Your task to perform on an android device: check android version Image 0: 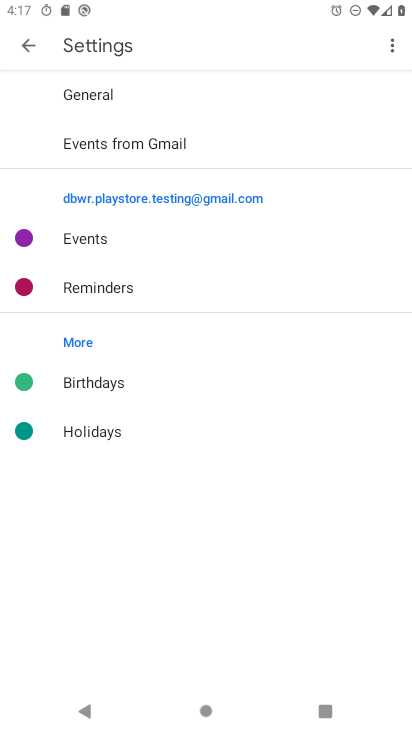
Step 0: press home button
Your task to perform on an android device: check android version Image 1: 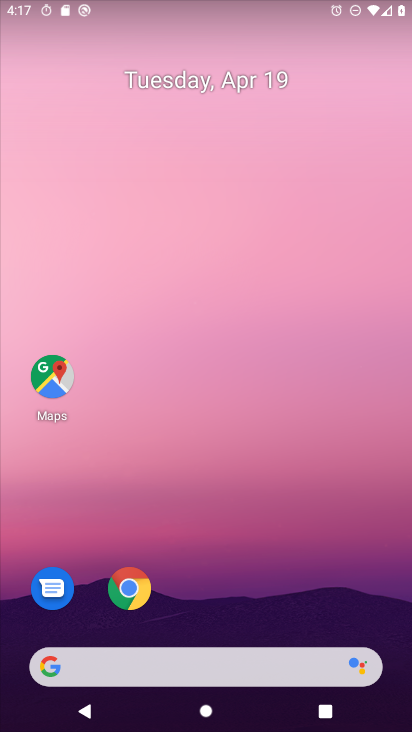
Step 1: drag from (213, 603) to (184, 111)
Your task to perform on an android device: check android version Image 2: 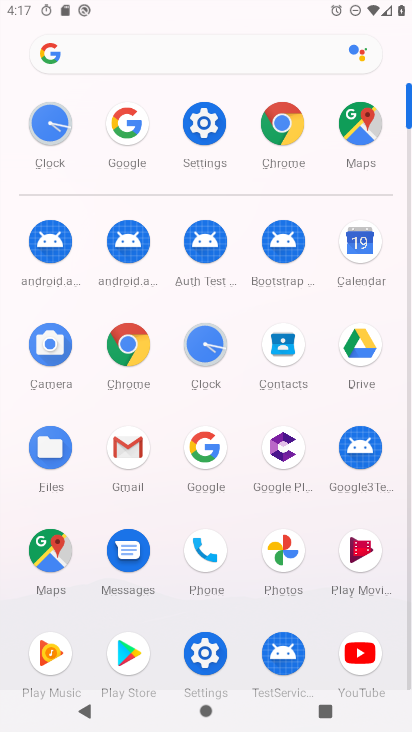
Step 2: click (204, 133)
Your task to perform on an android device: check android version Image 3: 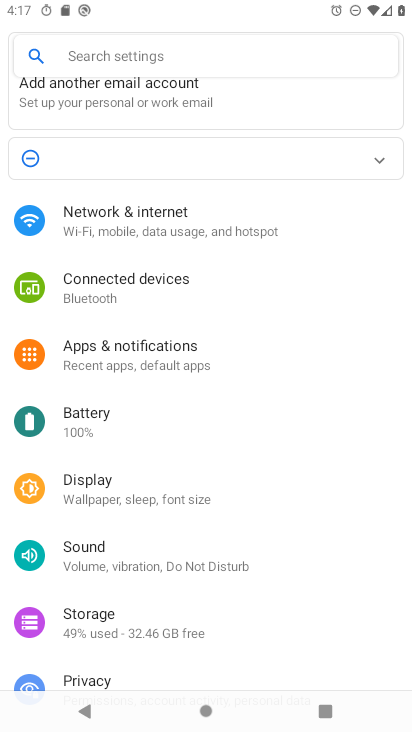
Step 3: drag from (209, 584) to (233, 176)
Your task to perform on an android device: check android version Image 4: 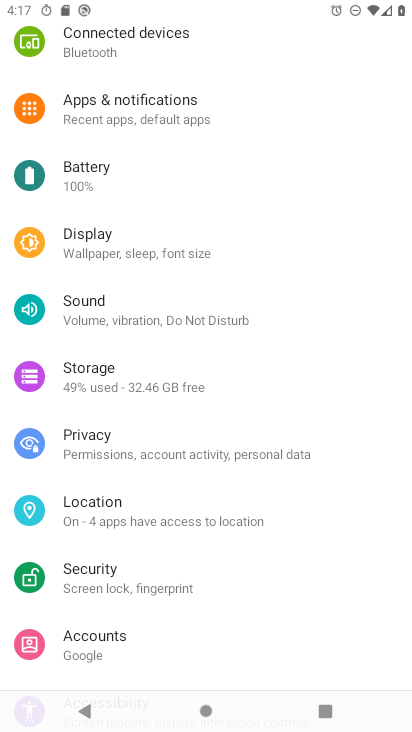
Step 4: drag from (187, 636) to (189, 259)
Your task to perform on an android device: check android version Image 5: 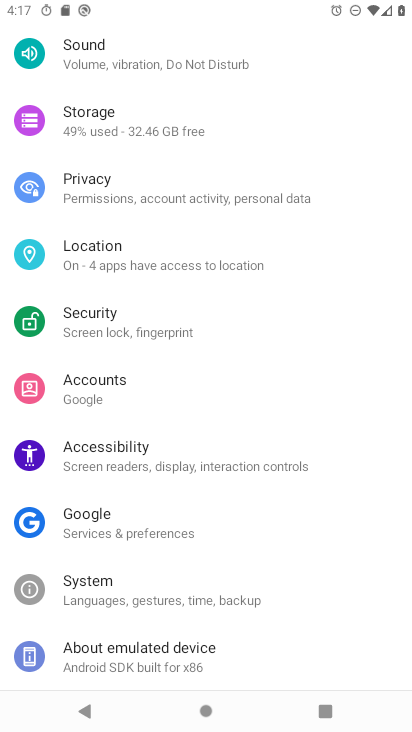
Step 5: click (168, 643)
Your task to perform on an android device: check android version Image 6: 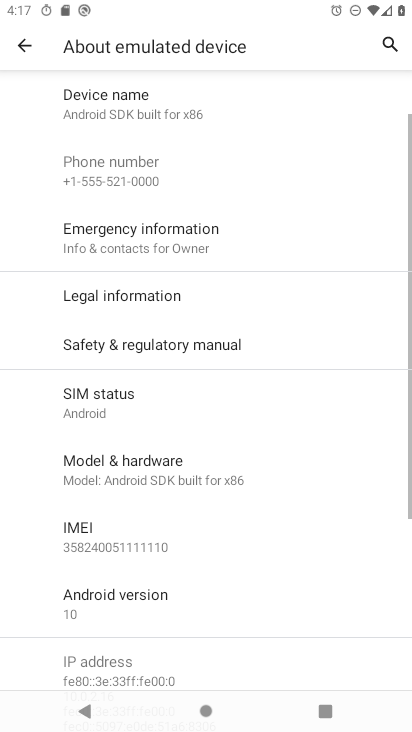
Step 6: click (136, 615)
Your task to perform on an android device: check android version Image 7: 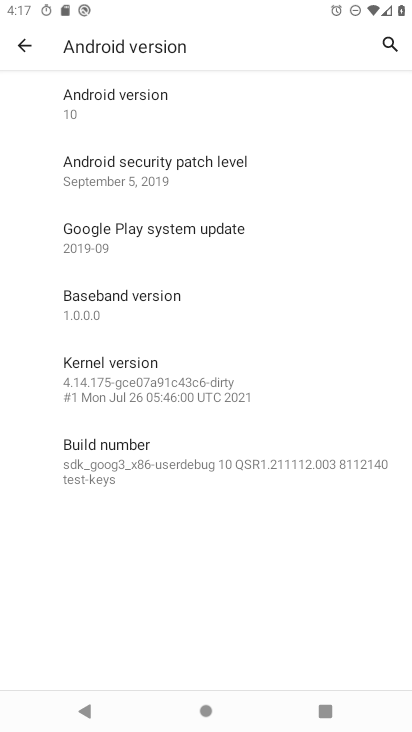
Step 7: click (105, 104)
Your task to perform on an android device: check android version Image 8: 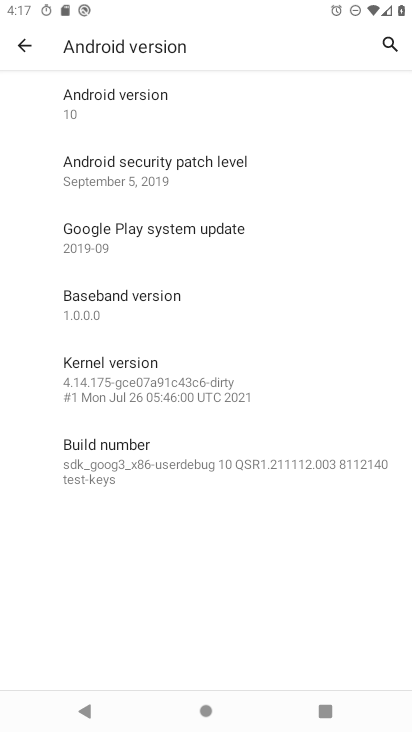
Step 8: task complete